Your task to perform on an android device: open app "NewsBreak: Local News & Alerts" (install if not already installed) Image 0: 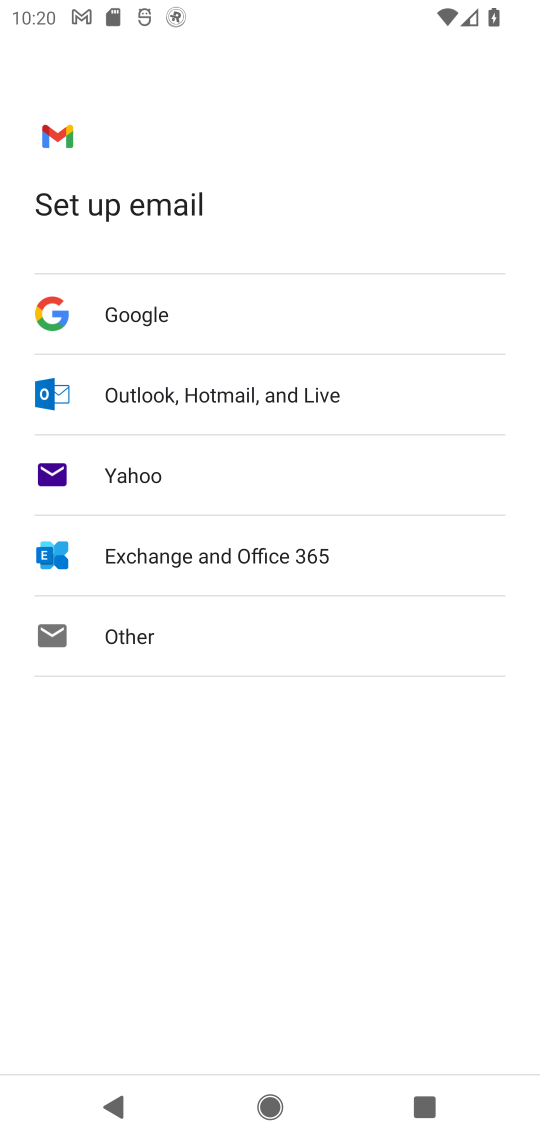
Step 0: press home button
Your task to perform on an android device: open app "NewsBreak: Local News & Alerts" (install if not already installed) Image 1: 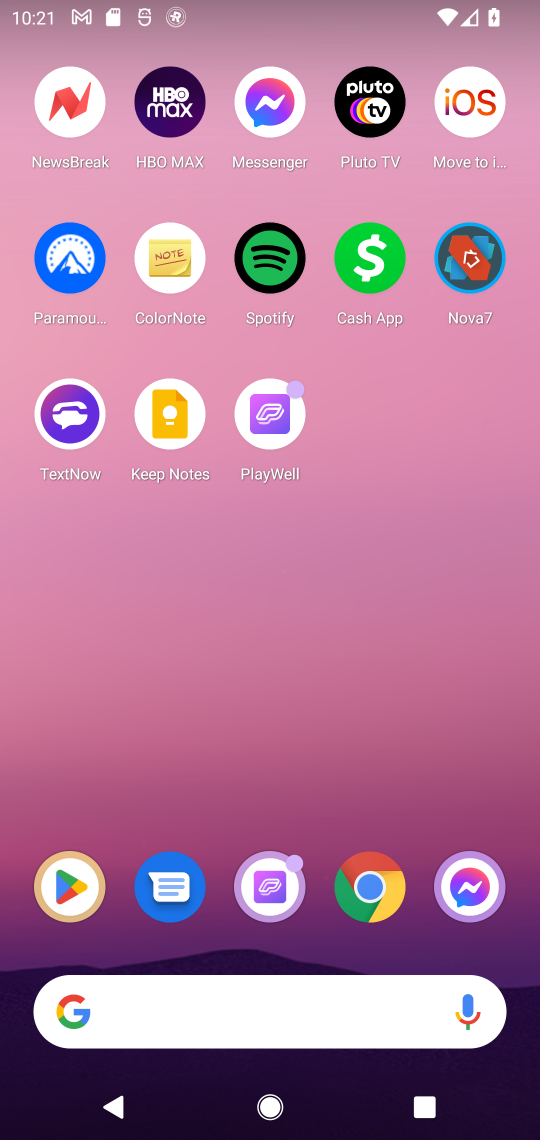
Step 1: click (63, 894)
Your task to perform on an android device: open app "NewsBreak: Local News & Alerts" (install if not already installed) Image 2: 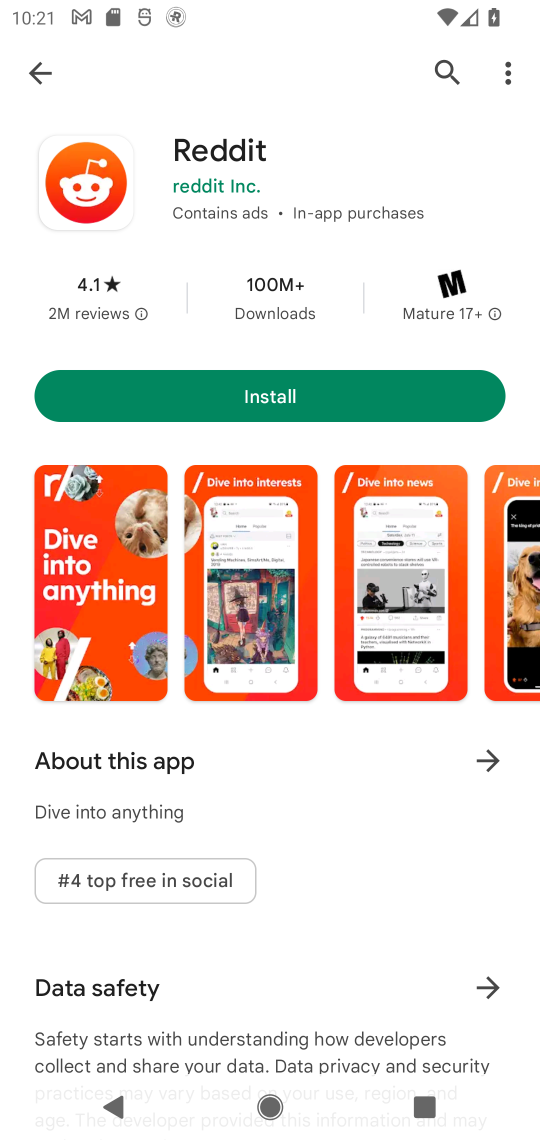
Step 2: click (438, 66)
Your task to perform on an android device: open app "NewsBreak: Local News & Alerts" (install if not already installed) Image 3: 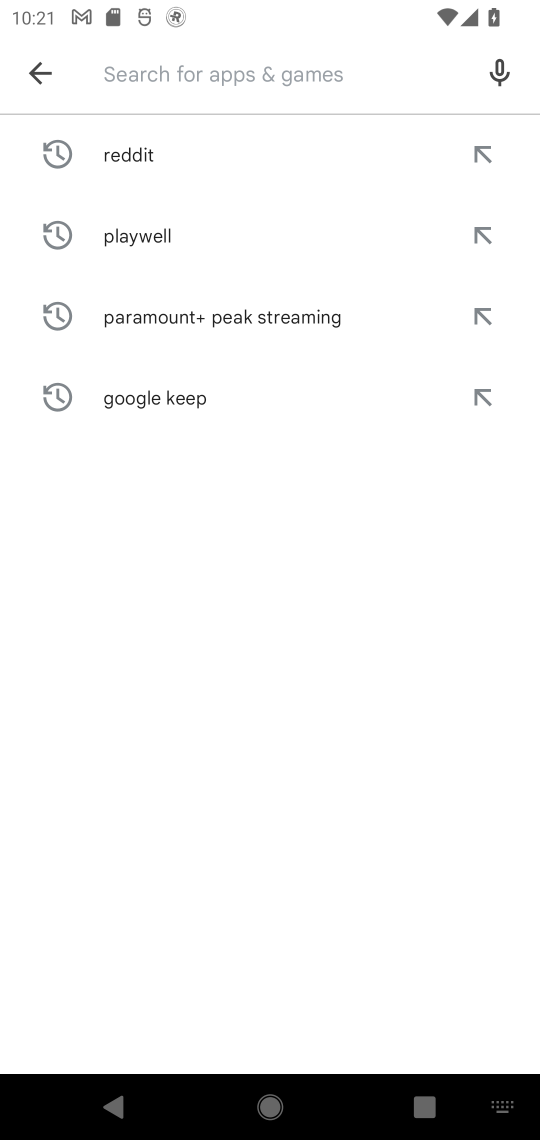
Step 3: type "newsbreak: local news Alerts"
Your task to perform on an android device: open app "NewsBreak: Local News & Alerts" (install if not already installed) Image 4: 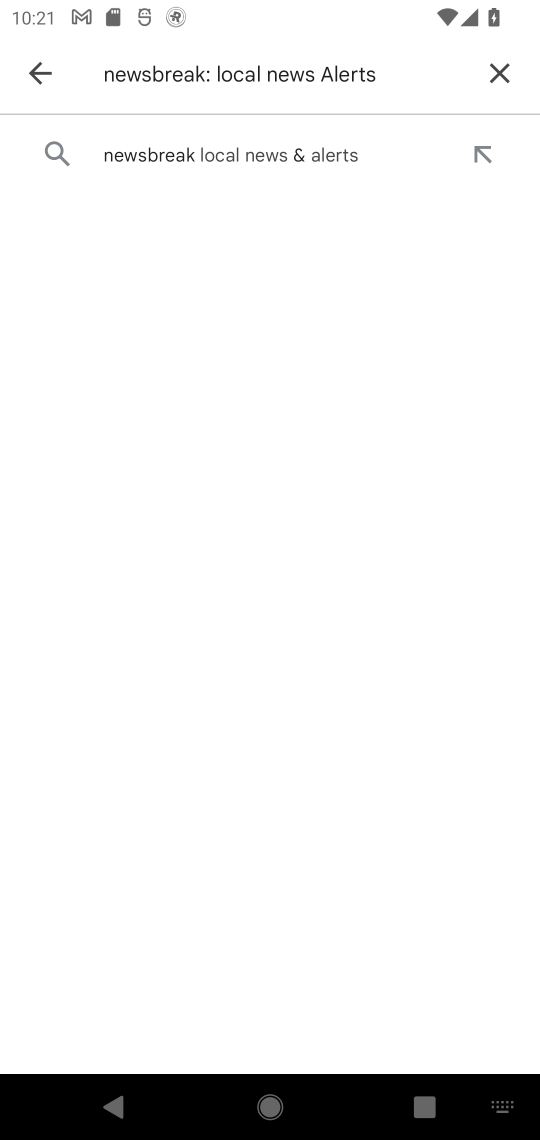
Step 4: click (273, 165)
Your task to perform on an android device: open app "NewsBreak: Local News & Alerts" (install if not already installed) Image 5: 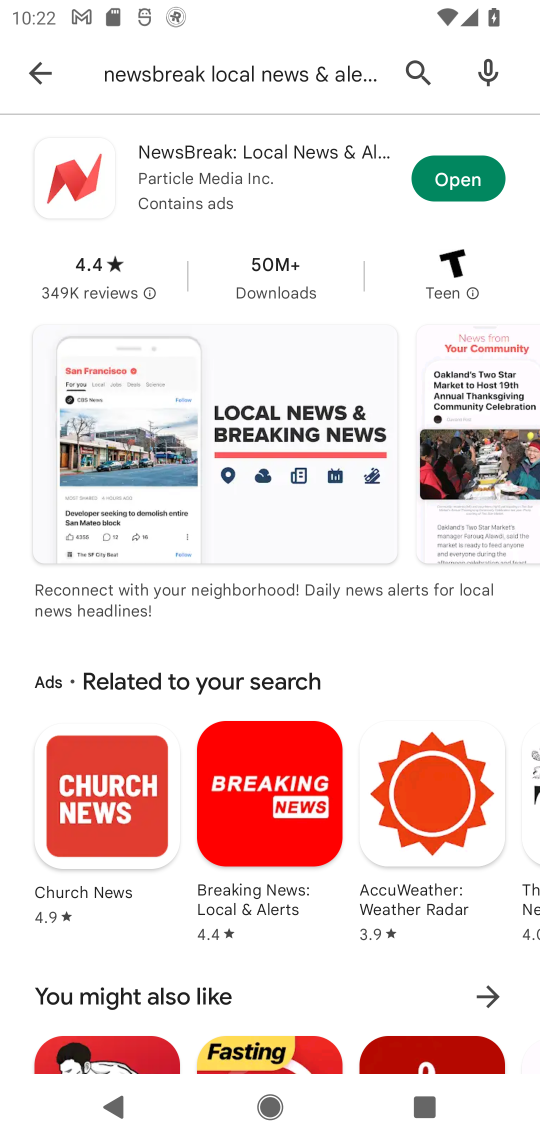
Step 5: click (284, 155)
Your task to perform on an android device: open app "NewsBreak: Local News & Alerts" (install if not already installed) Image 6: 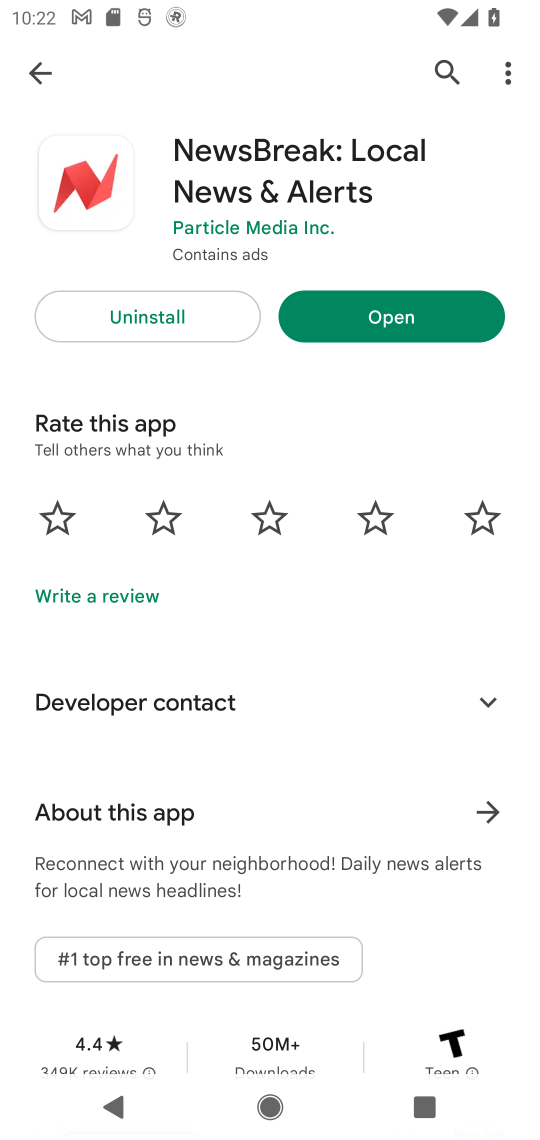
Step 6: click (395, 326)
Your task to perform on an android device: open app "NewsBreak: Local News & Alerts" (install if not already installed) Image 7: 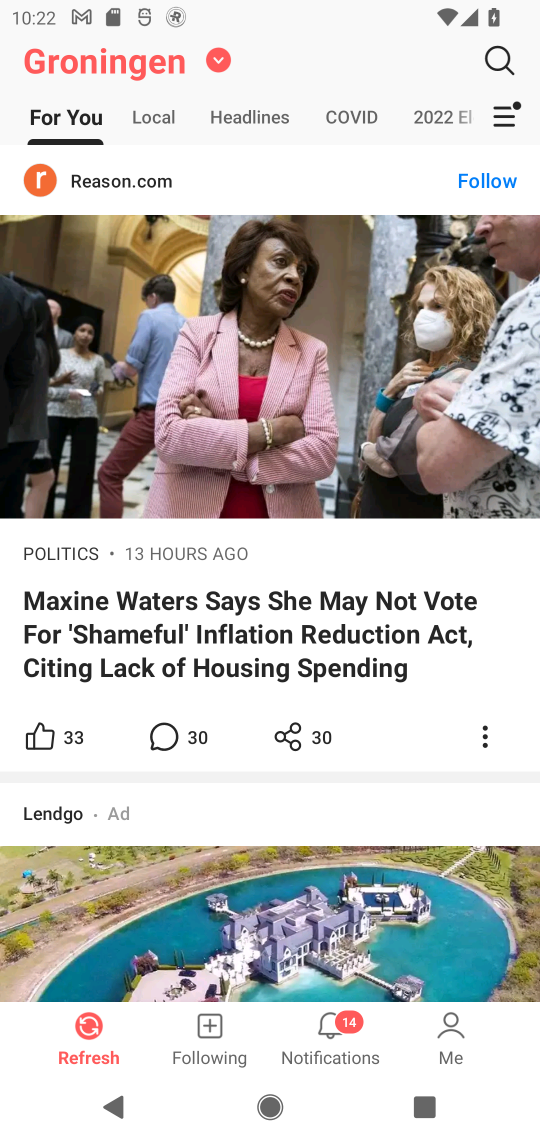
Step 7: task complete